Your task to perform on an android device: toggle notification dots Image 0: 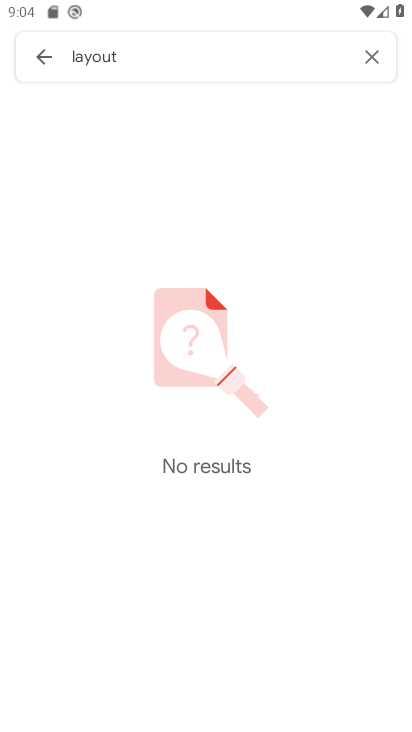
Step 0: press home button
Your task to perform on an android device: toggle notification dots Image 1: 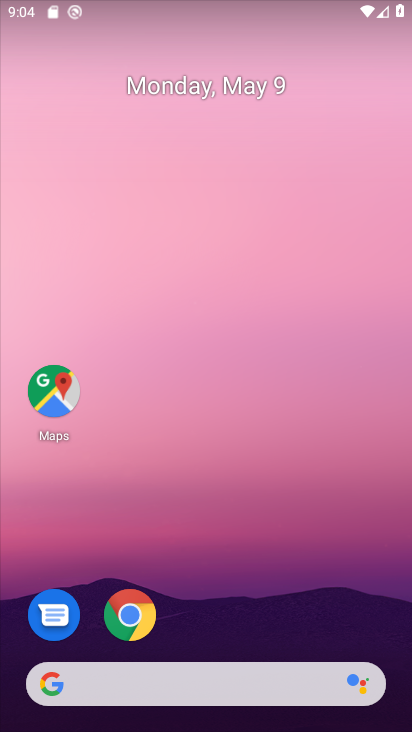
Step 1: drag from (237, 708) to (333, 317)
Your task to perform on an android device: toggle notification dots Image 2: 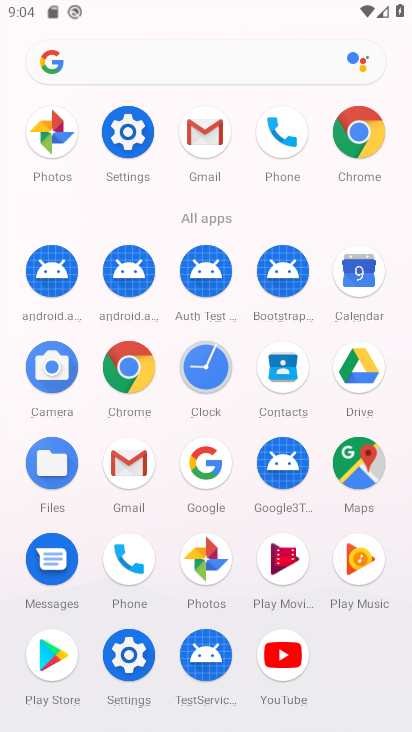
Step 2: click (135, 133)
Your task to perform on an android device: toggle notification dots Image 3: 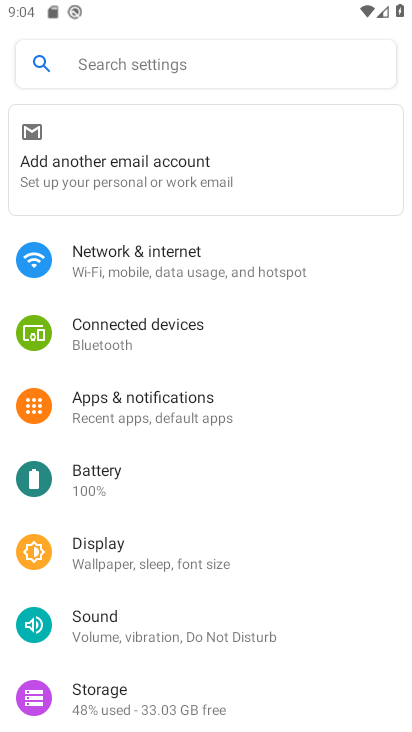
Step 3: click (157, 70)
Your task to perform on an android device: toggle notification dots Image 4: 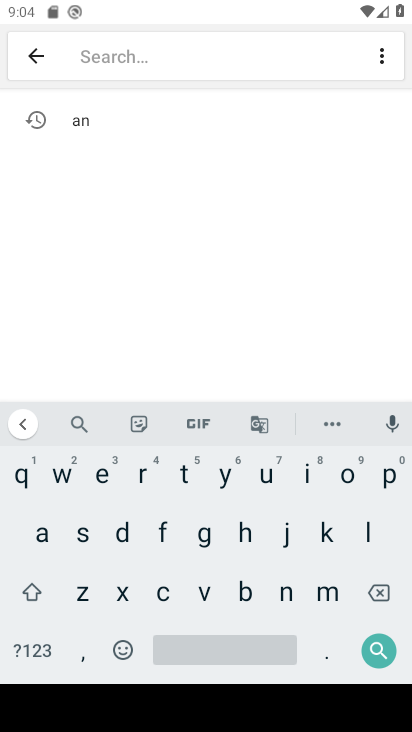
Step 4: click (120, 541)
Your task to perform on an android device: toggle notification dots Image 5: 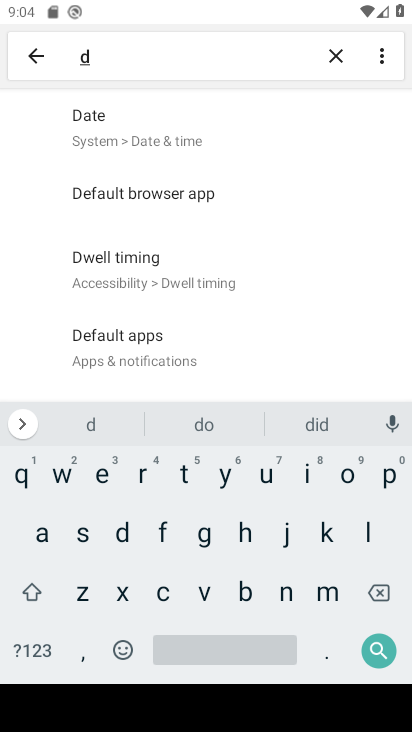
Step 5: click (335, 474)
Your task to perform on an android device: toggle notification dots Image 6: 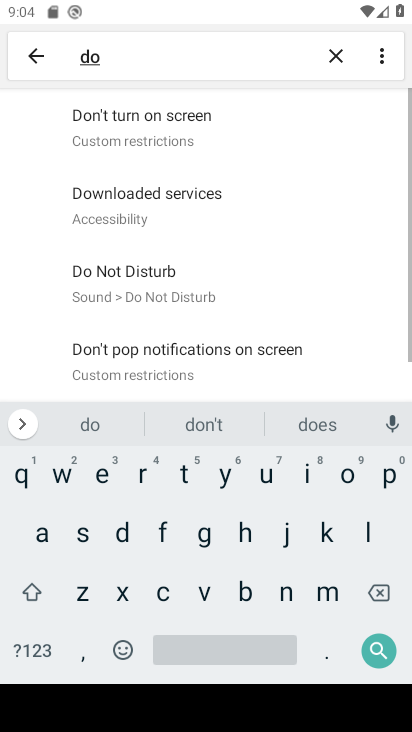
Step 6: click (184, 481)
Your task to perform on an android device: toggle notification dots Image 7: 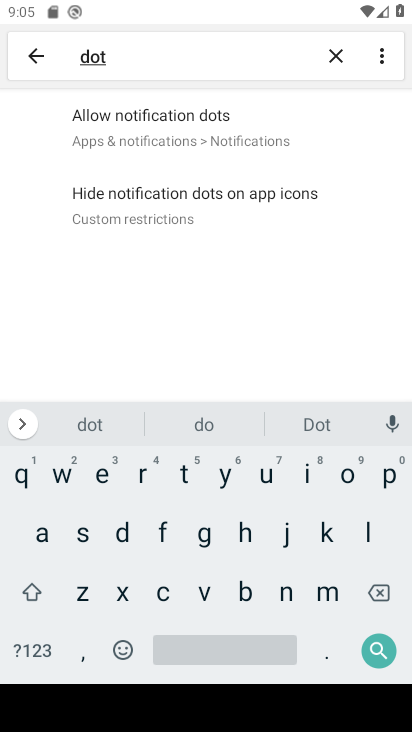
Step 7: click (215, 143)
Your task to perform on an android device: toggle notification dots Image 8: 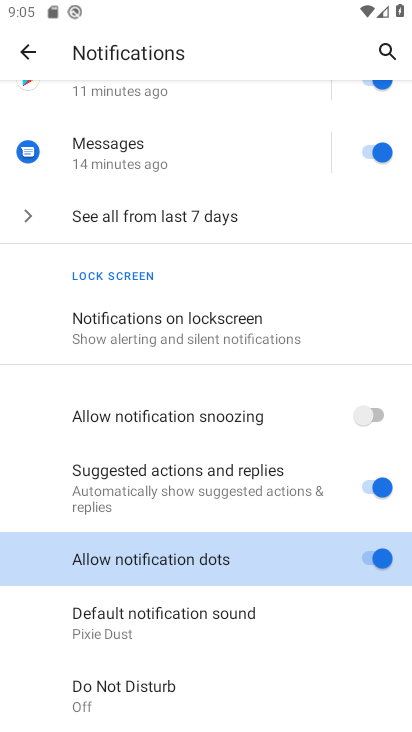
Step 8: click (210, 564)
Your task to perform on an android device: toggle notification dots Image 9: 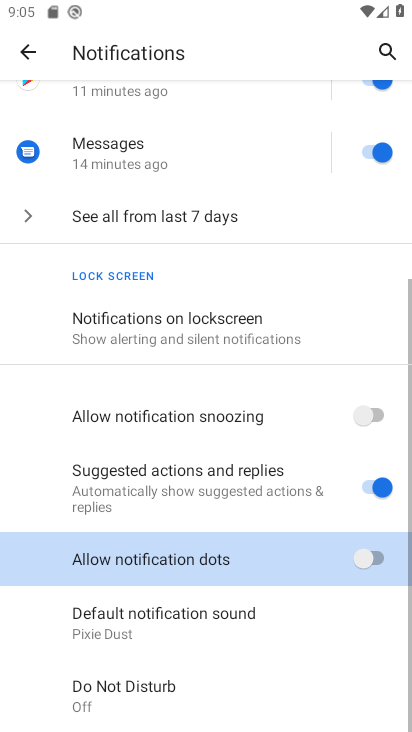
Step 9: click (210, 564)
Your task to perform on an android device: toggle notification dots Image 10: 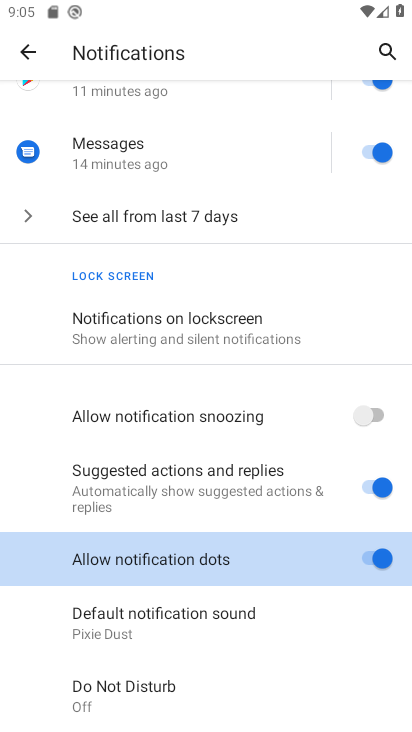
Step 10: task complete